Your task to perform on an android device: turn off priority inbox in the gmail app Image 0: 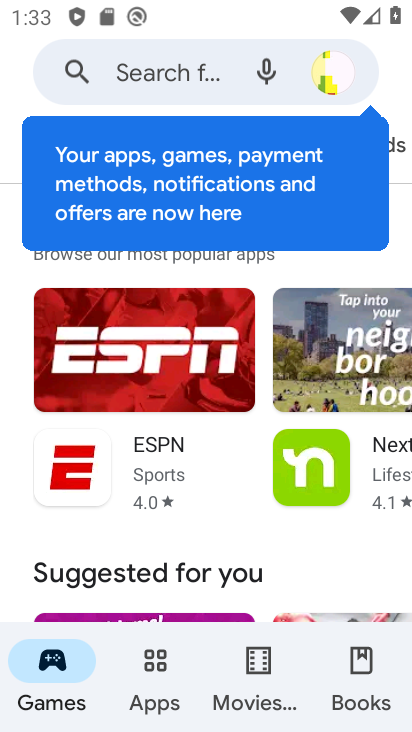
Step 0: press home button
Your task to perform on an android device: turn off priority inbox in the gmail app Image 1: 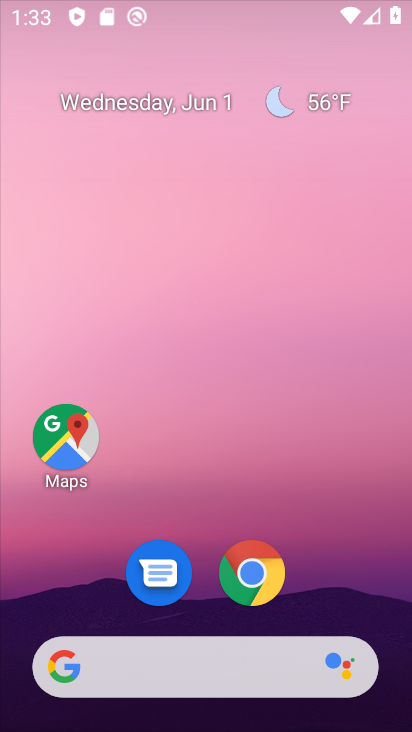
Step 1: drag from (203, 538) to (209, 96)
Your task to perform on an android device: turn off priority inbox in the gmail app Image 2: 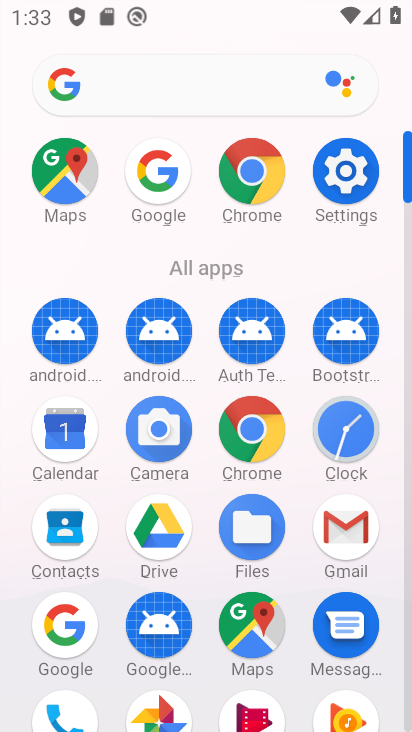
Step 2: click (347, 542)
Your task to perform on an android device: turn off priority inbox in the gmail app Image 3: 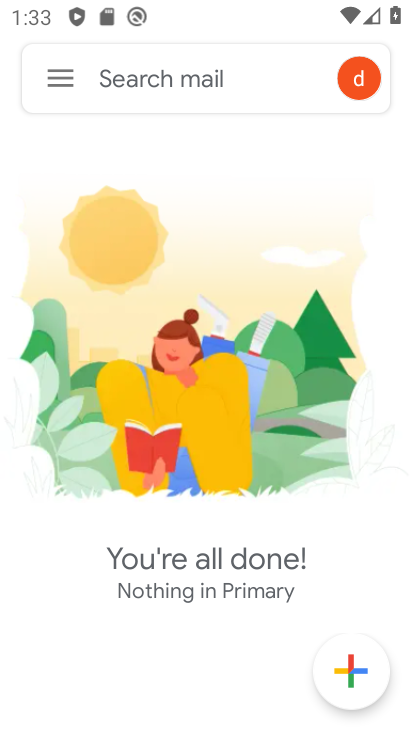
Step 3: click (41, 77)
Your task to perform on an android device: turn off priority inbox in the gmail app Image 4: 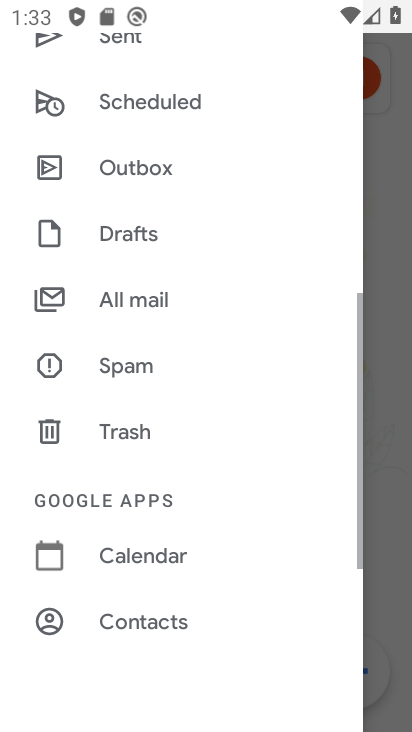
Step 4: click (54, 84)
Your task to perform on an android device: turn off priority inbox in the gmail app Image 5: 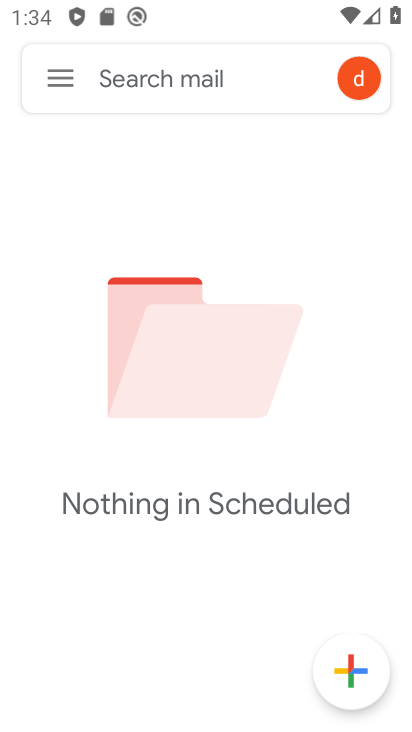
Step 5: click (54, 71)
Your task to perform on an android device: turn off priority inbox in the gmail app Image 6: 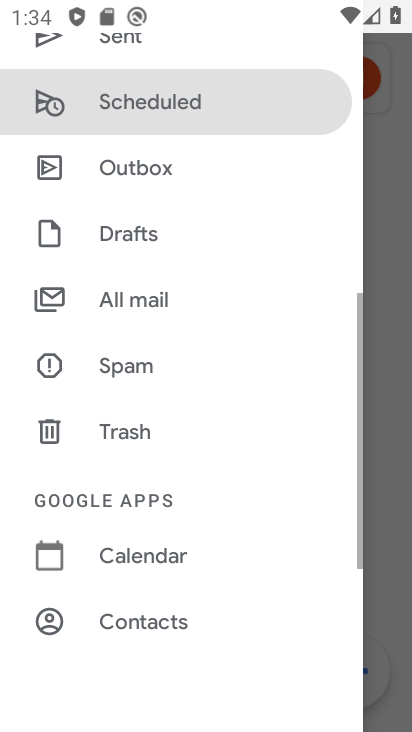
Step 6: drag from (142, 238) to (193, 723)
Your task to perform on an android device: turn off priority inbox in the gmail app Image 7: 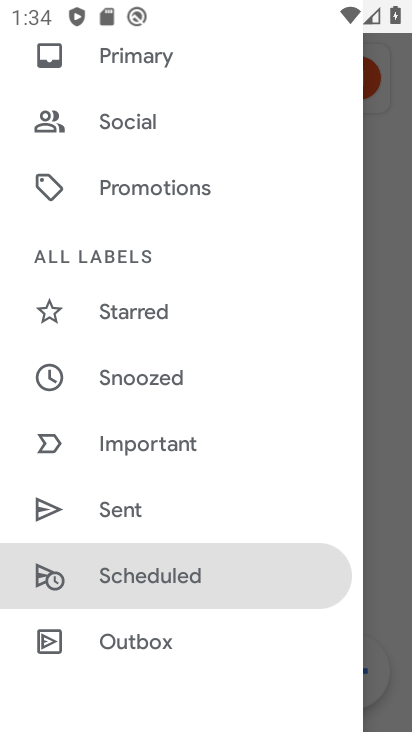
Step 7: drag from (170, 142) to (165, 671)
Your task to perform on an android device: turn off priority inbox in the gmail app Image 8: 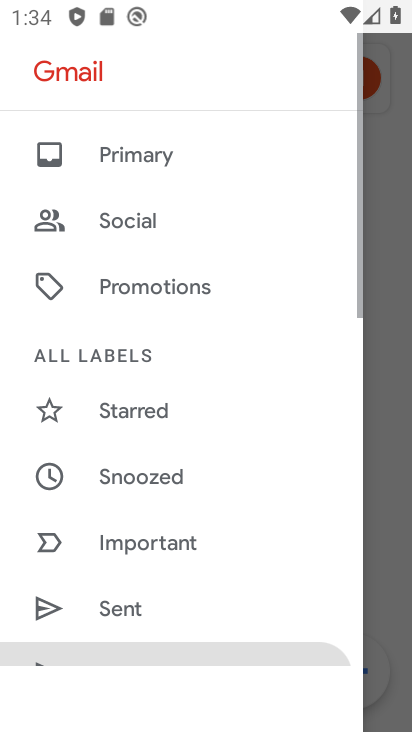
Step 8: drag from (148, 468) to (190, 6)
Your task to perform on an android device: turn off priority inbox in the gmail app Image 9: 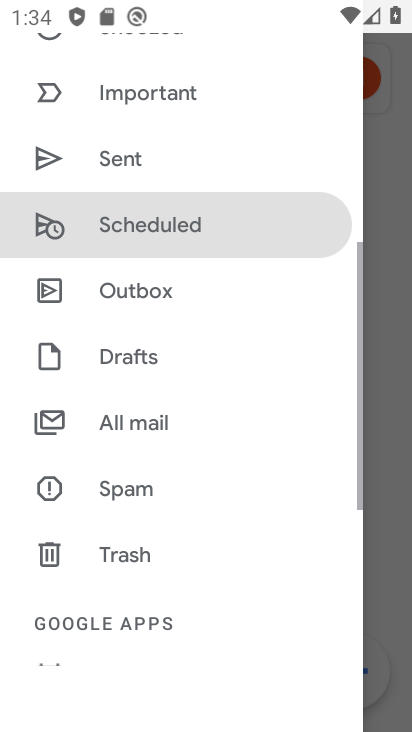
Step 9: click (179, 118)
Your task to perform on an android device: turn off priority inbox in the gmail app Image 10: 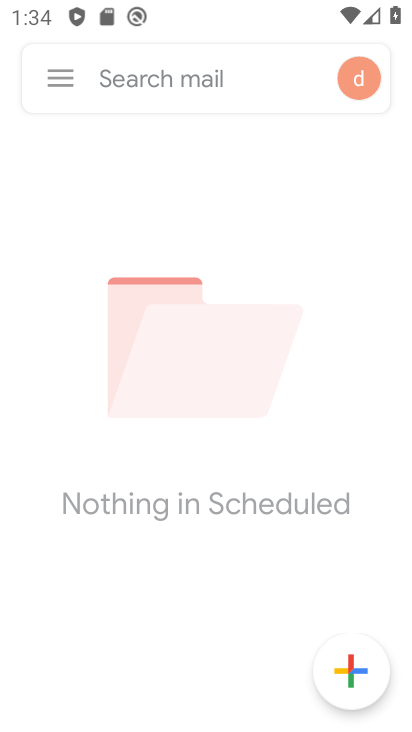
Step 10: drag from (173, 547) to (240, 161)
Your task to perform on an android device: turn off priority inbox in the gmail app Image 11: 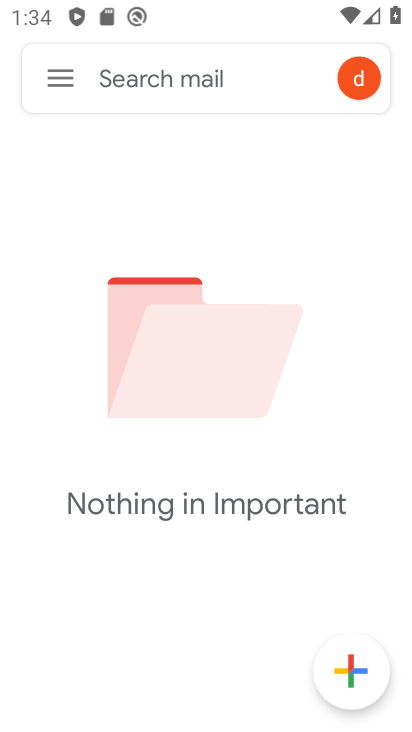
Step 11: click (79, 70)
Your task to perform on an android device: turn off priority inbox in the gmail app Image 12: 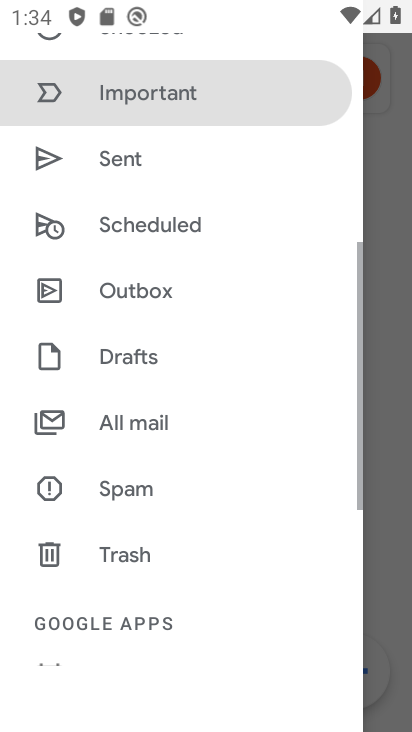
Step 12: drag from (151, 530) to (184, 76)
Your task to perform on an android device: turn off priority inbox in the gmail app Image 13: 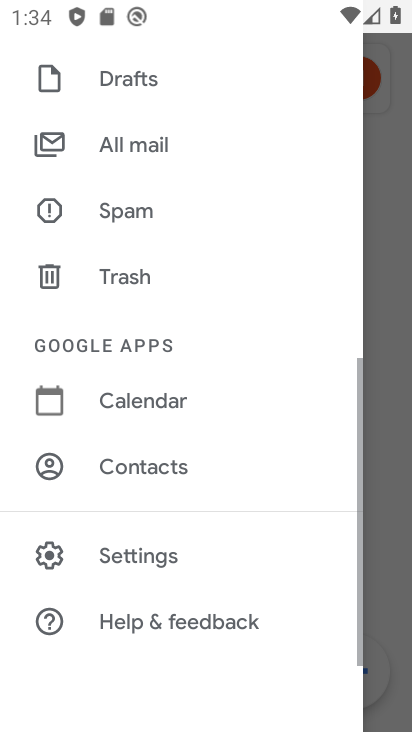
Step 13: click (117, 594)
Your task to perform on an android device: turn off priority inbox in the gmail app Image 14: 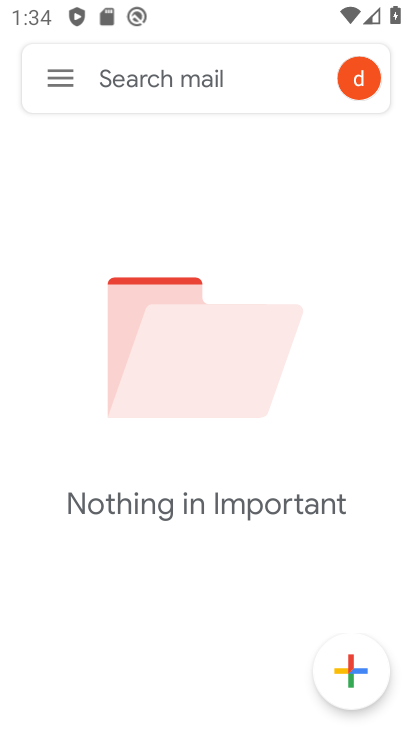
Step 14: click (73, 85)
Your task to perform on an android device: turn off priority inbox in the gmail app Image 15: 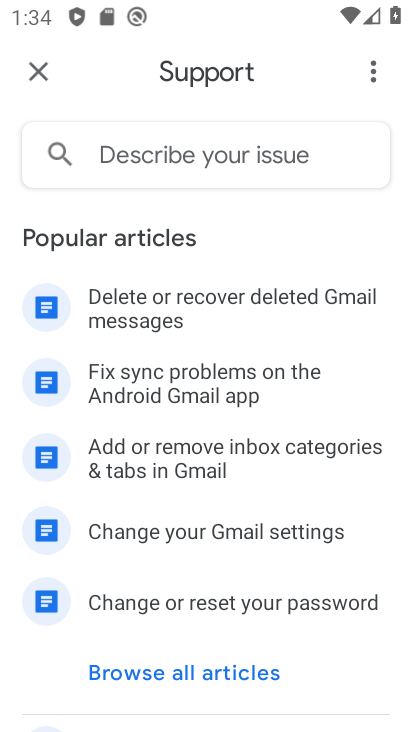
Step 15: press back button
Your task to perform on an android device: turn off priority inbox in the gmail app Image 16: 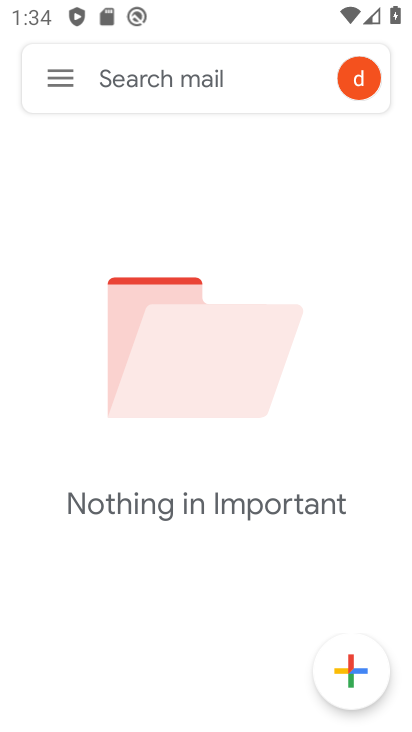
Step 16: click (58, 83)
Your task to perform on an android device: turn off priority inbox in the gmail app Image 17: 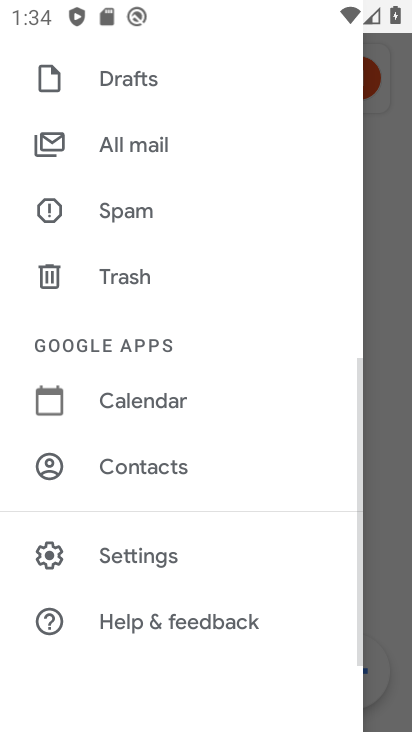
Step 17: click (129, 545)
Your task to perform on an android device: turn off priority inbox in the gmail app Image 18: 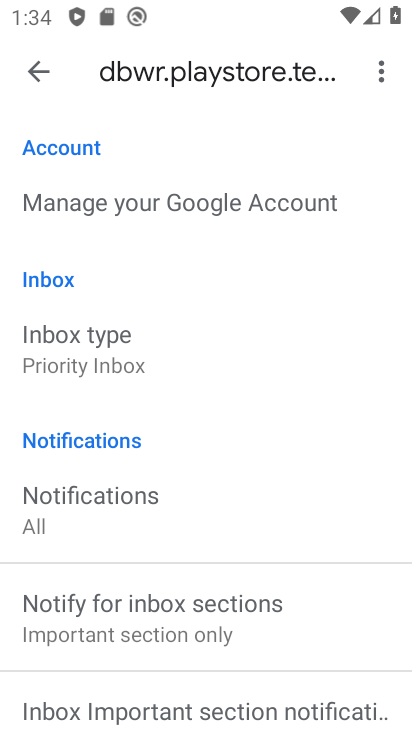
Step 18: drag from (188, 240) to (207, 669)
Your task to perform on an android device: turn off priority inbox in the gmail app Image 19: 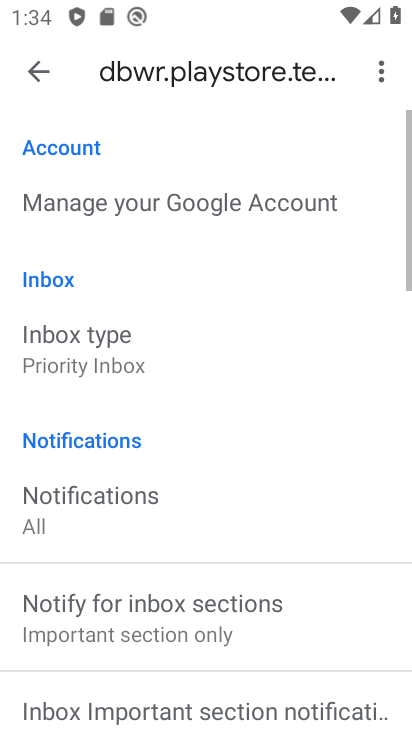
Step 19: click (129, 381)
Your task to perform on an android device: turn off priority inbox in the gmail app Image 20: 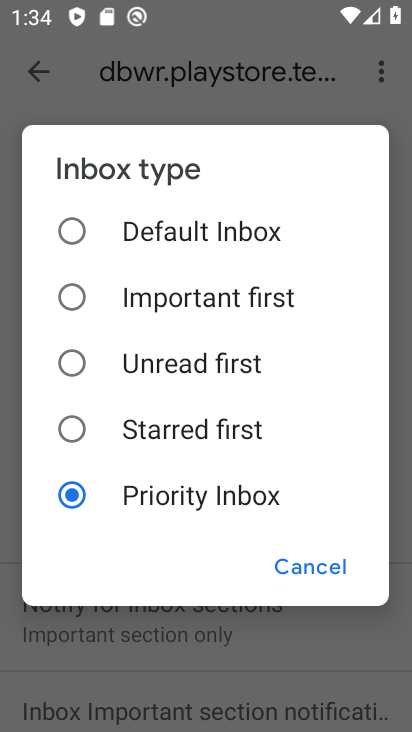
Step 20: click (166, 238)
Your task to perform on an android device: turn off priority inbox in the gmail app Image 21: 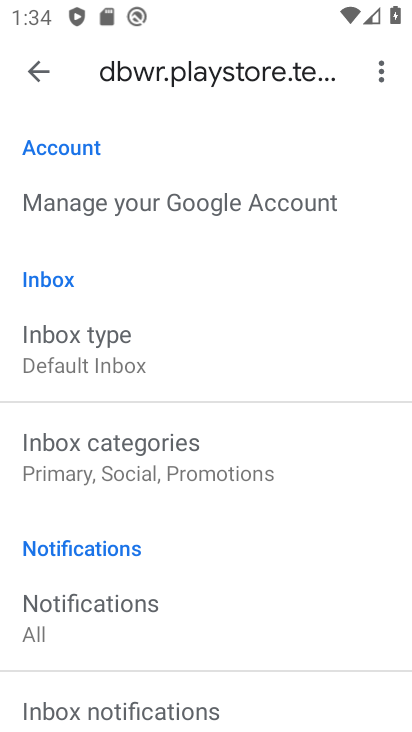
Step 21: task complete